Your task to perform on an android device: turn on location history Image 0: 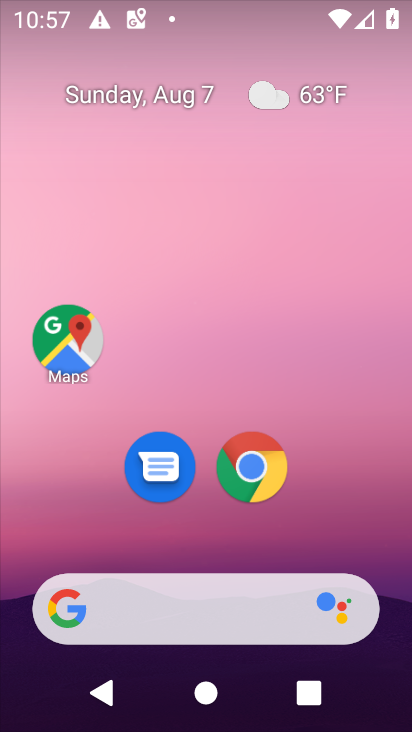
Step 0: press back button
Your task to perform on an android device: turn on location history Image 1: 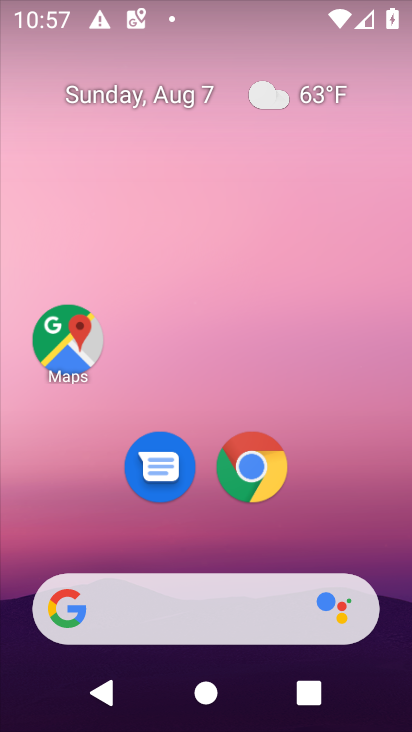
Step 1: drag from (226, 650) to (219, 271)
Your task to perform on an android device: turn on location history Image 2: 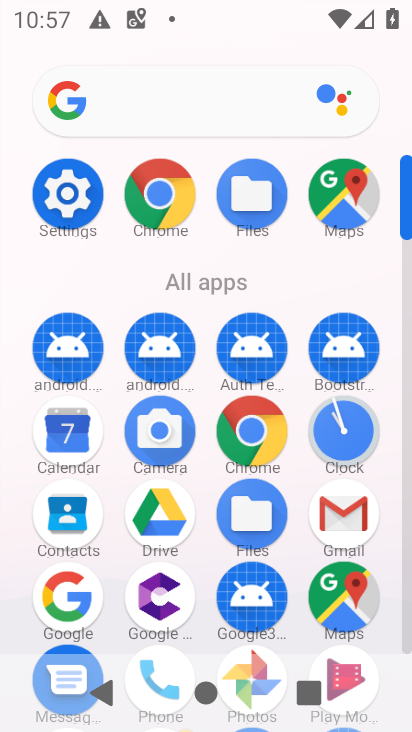
Step 2: click (157, 185)
Your task to perform on an android device: turn on location history Image 3: 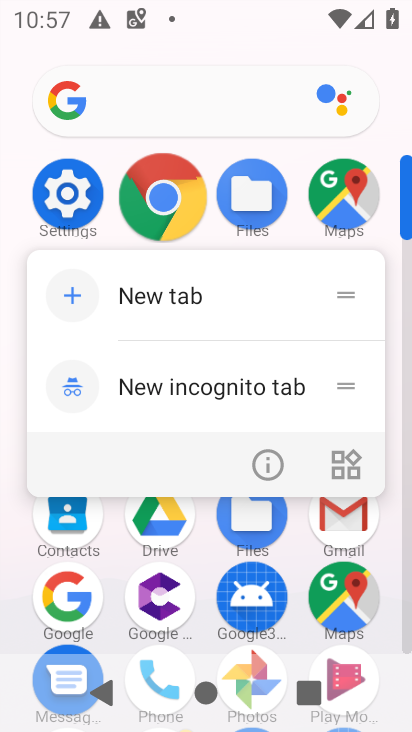
Step 3: click (159, 190)
Your task to perform on an android device: turn on location history Image 4: 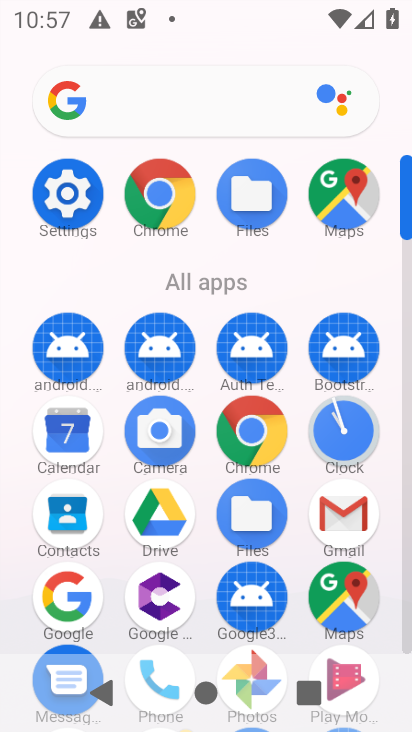
Step 4: click (196, 161)
Your task to perform on an android device: turn on location history Image 5: 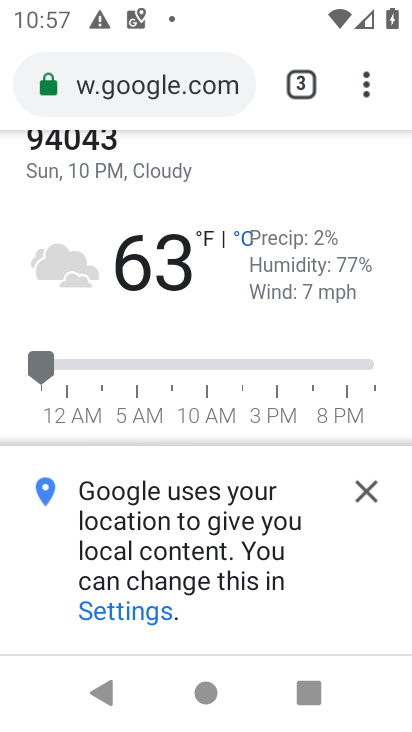
Step 5: drag from (219, 206) to (231, 419)
Your task to perform on an android device: turn on location history Image 6: 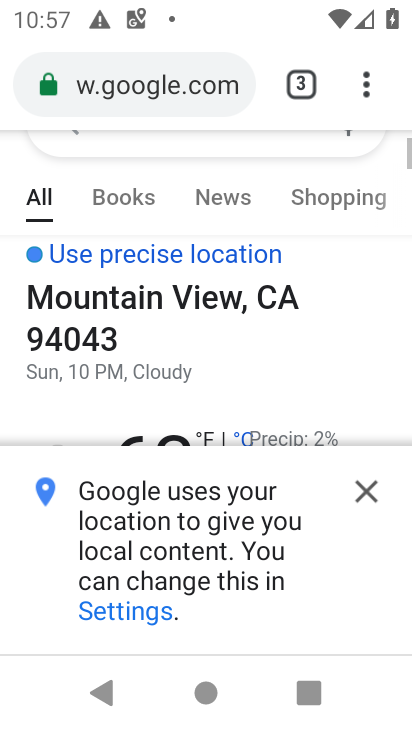
Step 6: drag from (250, 244) to (249, 529)
Your task to perform on an android device: turn on location history Image 7: 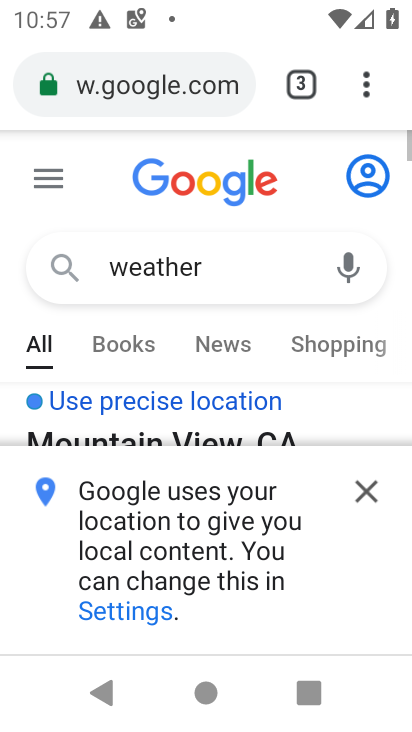
Step 7: drag from (243, 309) to (239, 469)
Your task to perform on an android device: turn on location history Image 8: 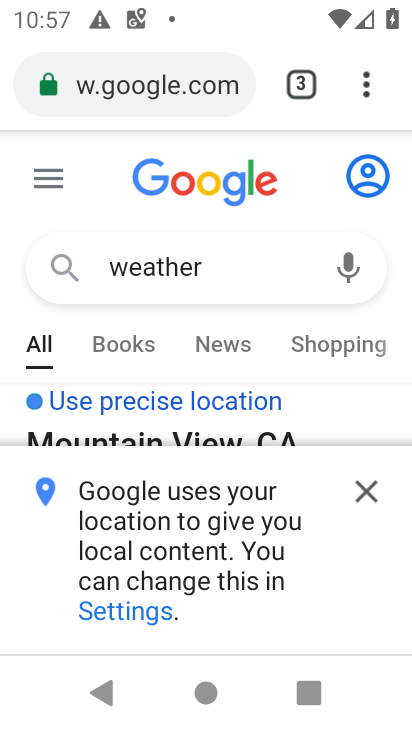
Step 8: press back button
Your task to perform on an android device: turn on location history Image 9: 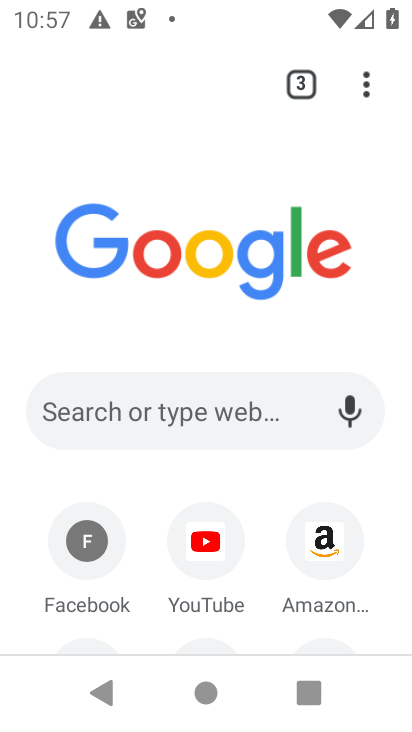
Step 9: press back button
Your task to perform on an android device: turn on location history Image 10: 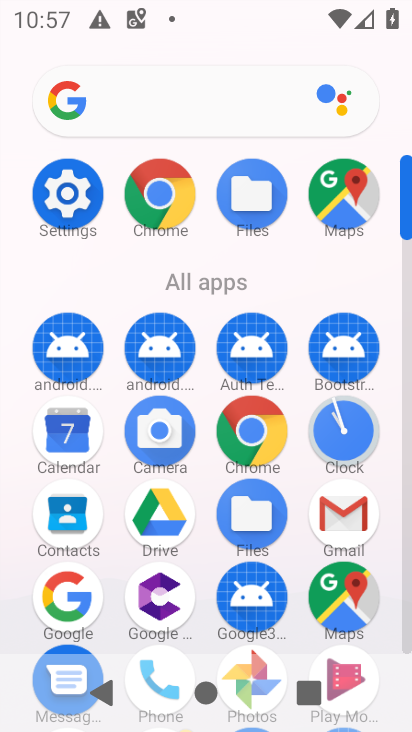
Step 10: drag from (64, 192) to (83, 220)
Your task to perform on an android device: turn on location history Image 11: 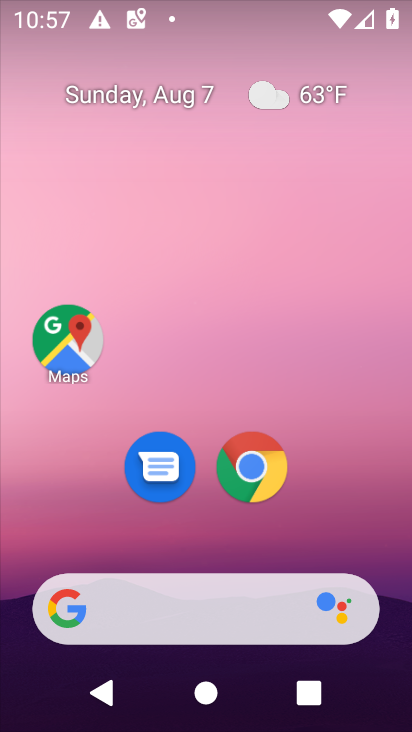
Step 11: drag from (188, 374) to (188, 192)
Your task to perform on an android device: turn on location history Image 12: 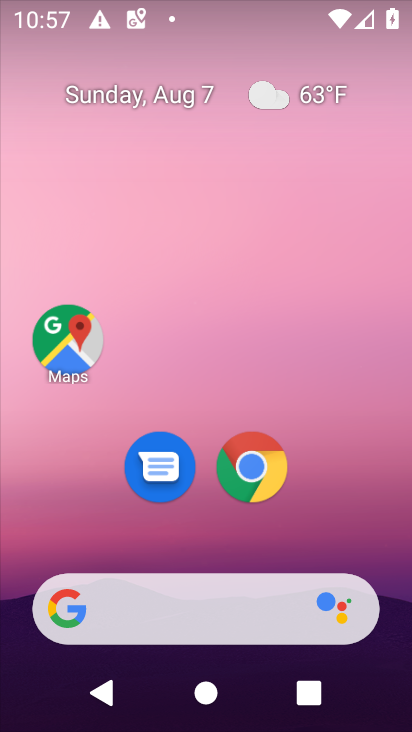
Step 12: drag from (149, 479) to (184, 151)
Your task to perform on an android device: turn on location history Image 13: 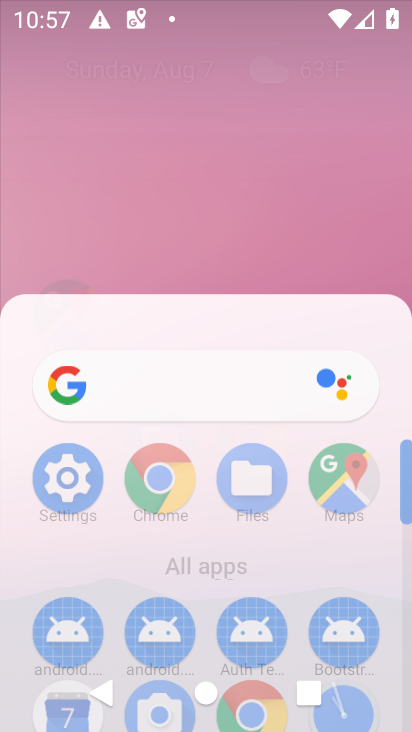
Step 13: drag from (231, 471) to (202, 138)
Your task to perform on an android device: turn on location history Image 14: 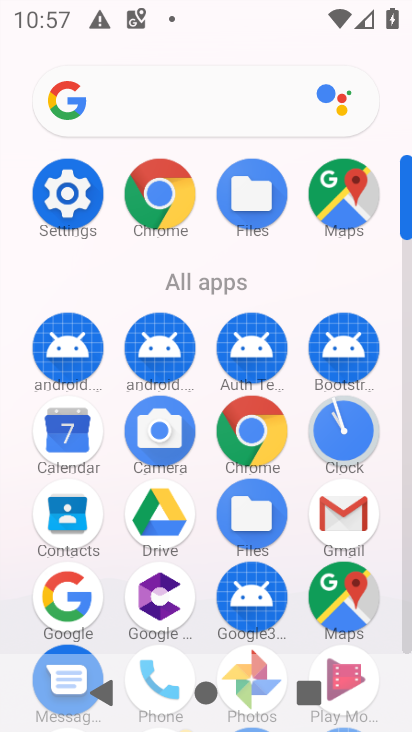
Step 14: drag from (281, 467) to (258, 143)
Your task to perform on an android device: turn on location history Image 15: 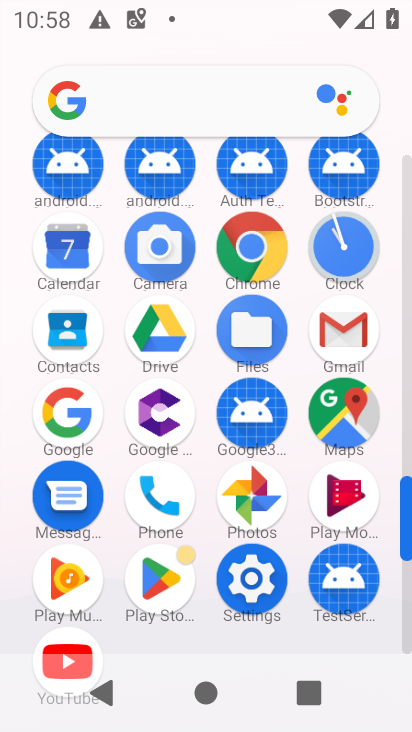
Step 15: drag from (268, 567) to (256, 609)
Your task to perform on an android device: turn on location history Image 16: 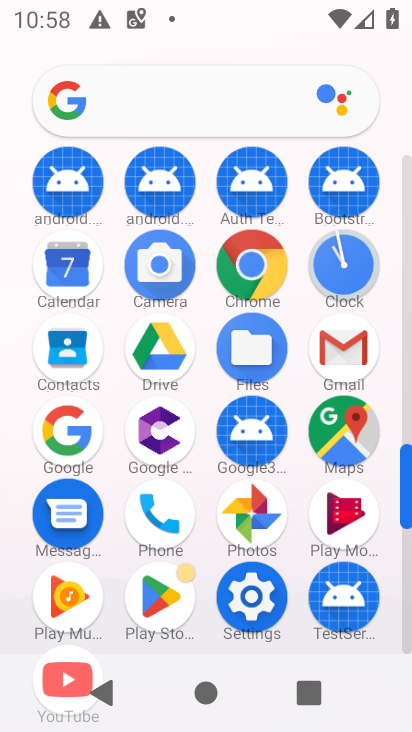
Step 16: click (234, 614)
Your task to perform on an android device: turn on location history Image 17: 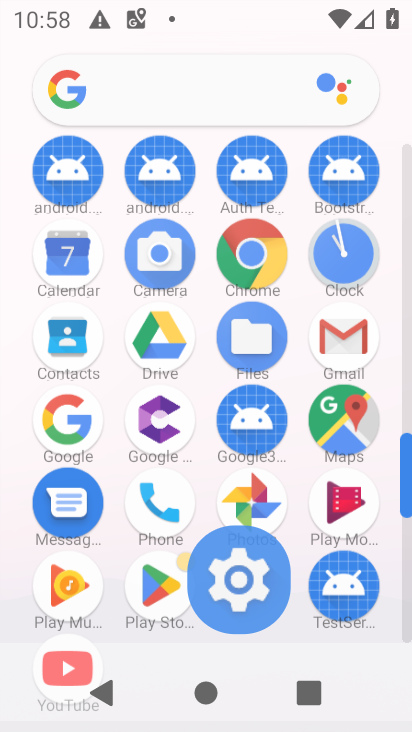
Step 17: click (234, 614)
Your task to perform on an android device: turn on location history Image 18: 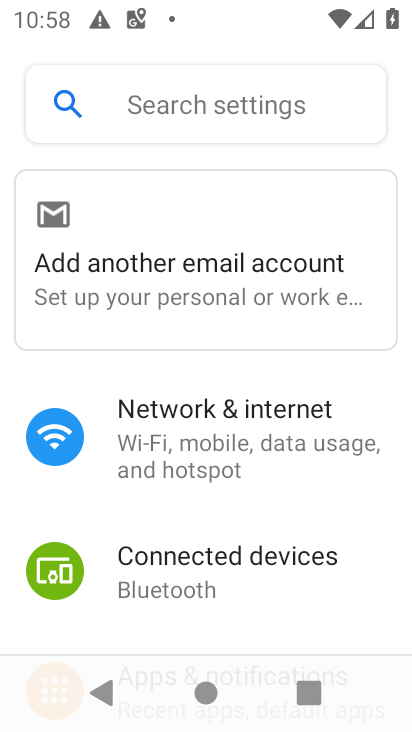
Step 18: drag from (187, 484) to (172, 321)
Your task to perform on an android device: turn on location history Image 19: 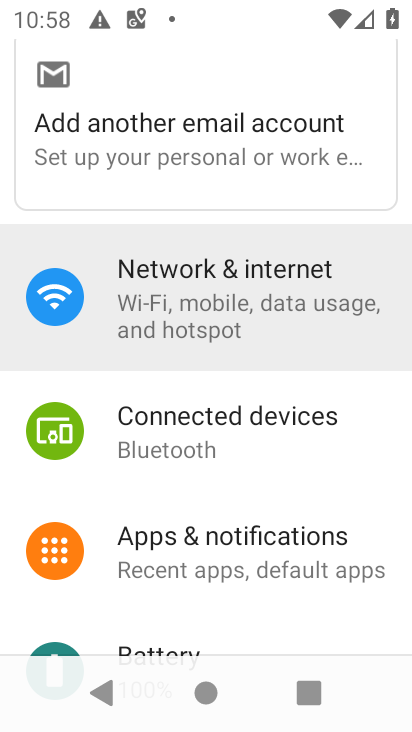
Step 19: drag from (238, 508) to (238, 204)
Your task to perform on an android device: turn on location history Image 20: 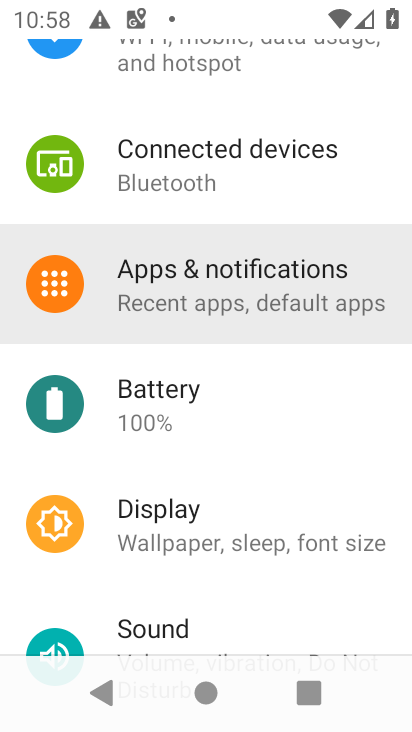
Step 20: click (289, 356)
Your task to perform on an android device: turn on location history Image 21: 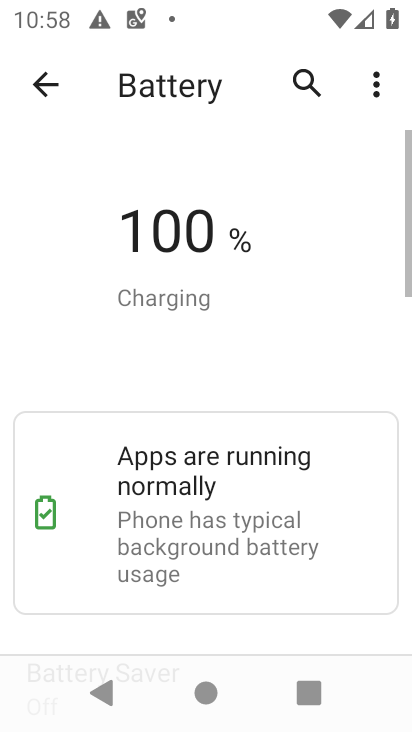
Step 21: drag from (213, 558) to (149, 220)
Your task to perform on an android device: turn on location history Image 22: 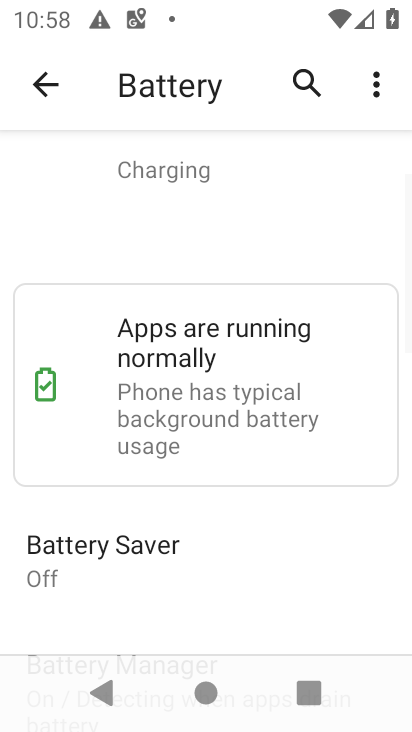
Step 22: click (37, 93)
Your task to perform on an android device: turn on location history Image 23: 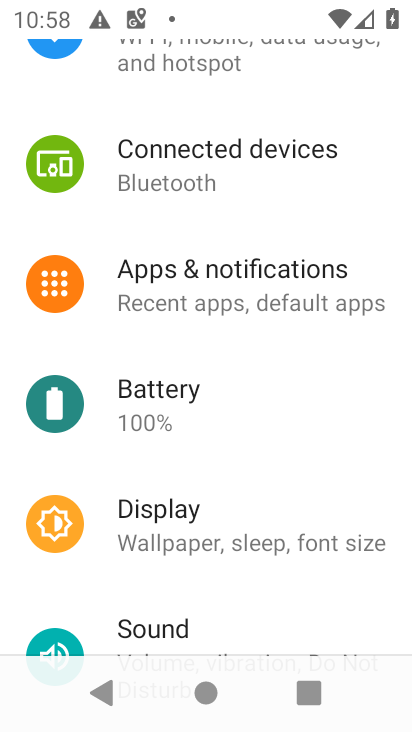
Step 23: drag from (254, 577) to (234, 200)
Your task to perform on an android device: turn on location history Image 24: 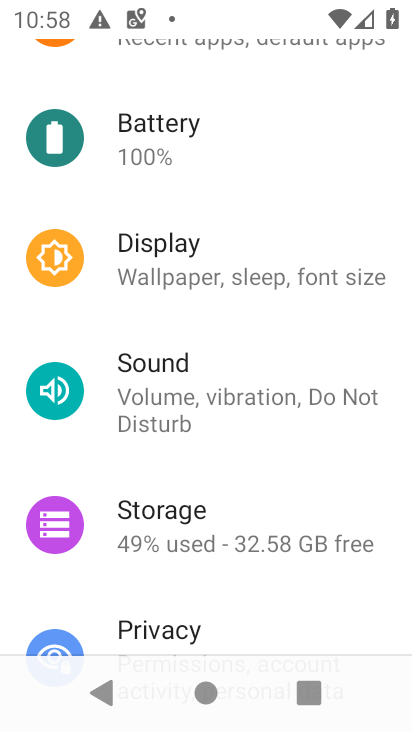
Step 24: click (301, 306)
Your task to perform on an android device: turn on location history Image 25: 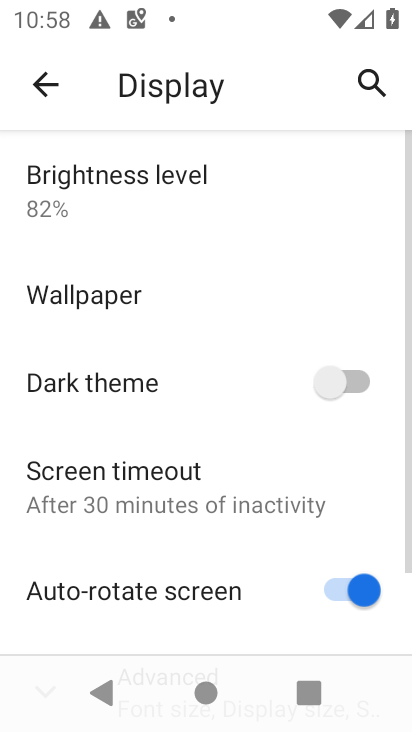
Step 25: click (39, 87)
Your task to perform on an android device: turn on location history Image 26: 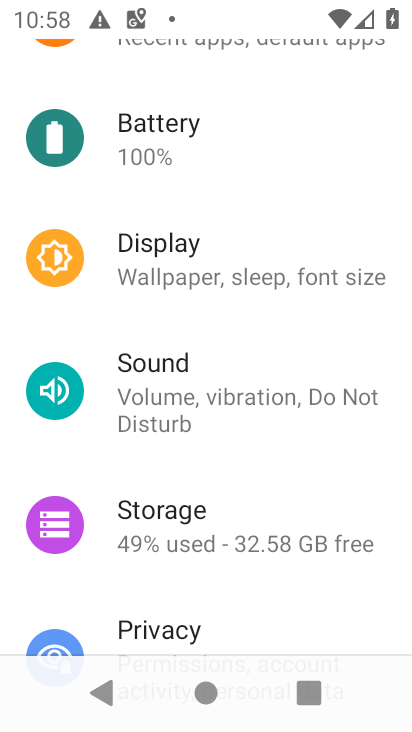
Step 26: drag from (216, 534) to (197, 251)
Your task to perform on an android device: turn on location history Image 27: 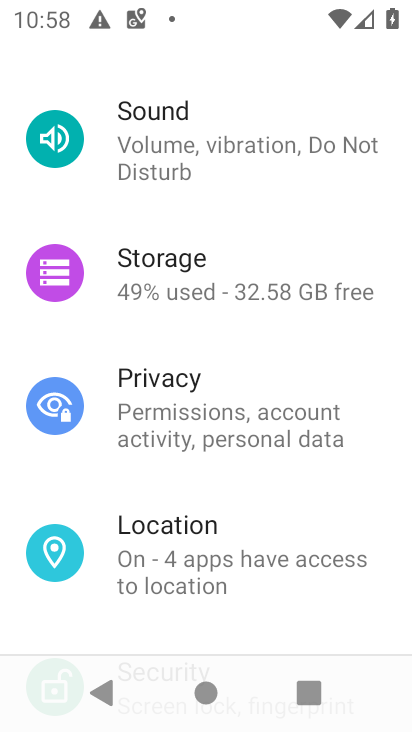
Step 27: drag from (227, 422) to (229, 279)
Your task to perform on an android device: turn on location history Image 28: 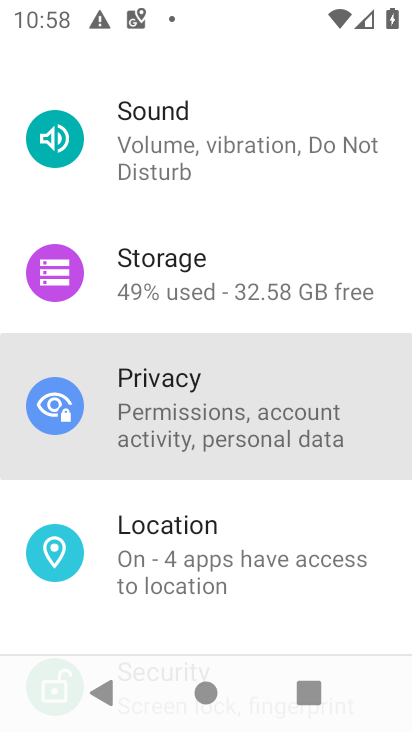
Step 28: drag from (250, 435) to (184, 322)
Your task to perform on an android device: turn on location history Image 29: 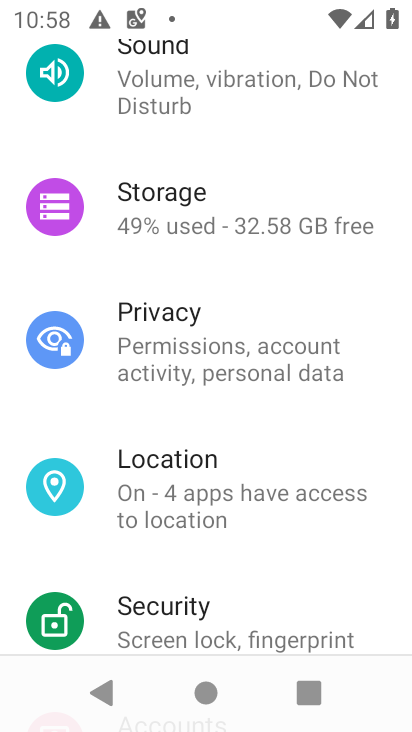
Step 29: click (183, 486)
Your task to perform on an android device: turn on location history Image 30: 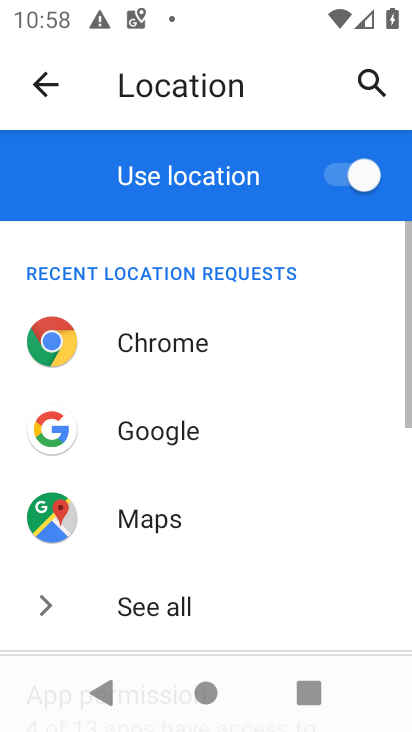
Step 30: click (41, 87)
Your task to perform on an android device: turn on location history Image 31: 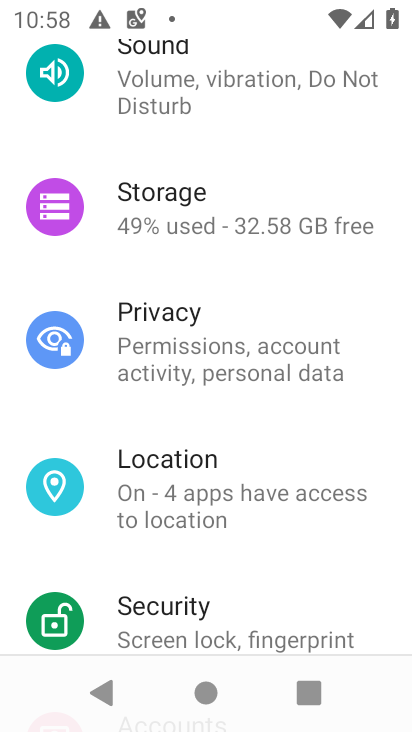
Step 31: click (181, 485)
Your task to perform on an android device: turn on location history Image 32: 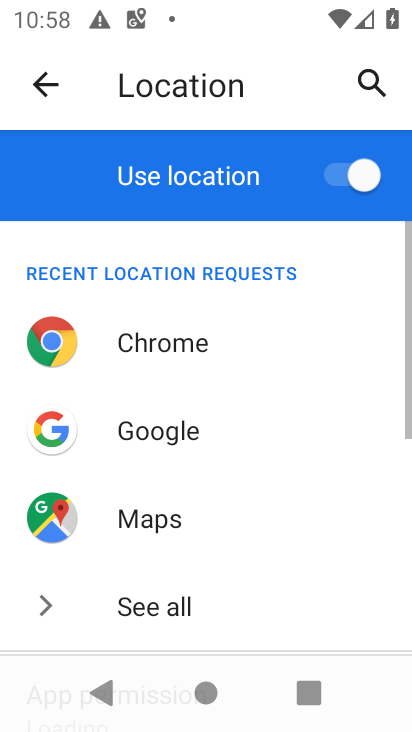
Step 32: drag from (200, 542) to (181, 253)
Your task to perform on an android device: turn on location history Image 33: 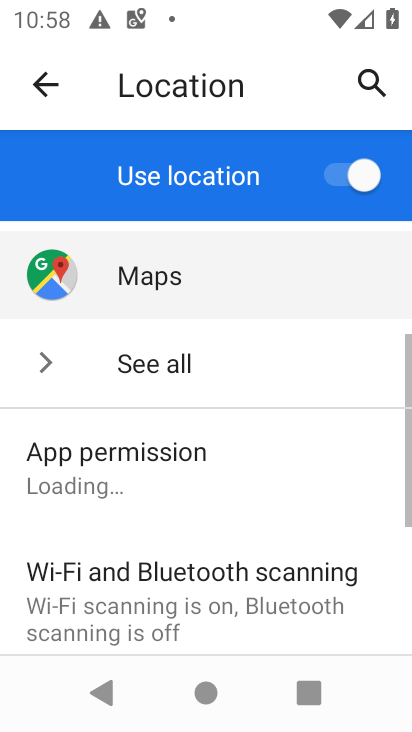
Step 33: drag from (243, 468) to (245, 208)
Your task to perform on an android device: turn on location history Image 34: 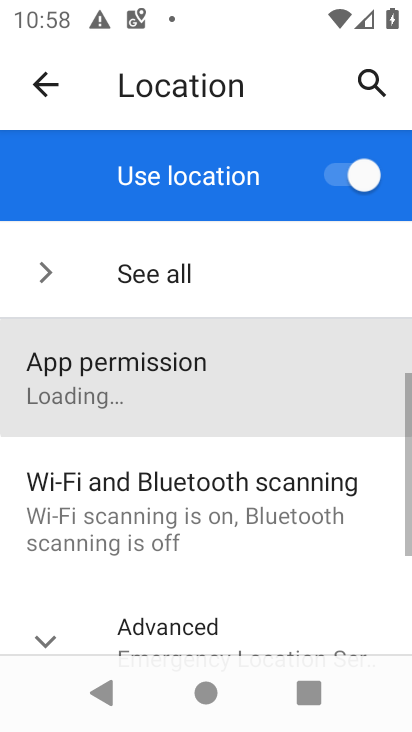
Step 34: drag from (239, 431) to (278, 194)
Your task to perform on an android device: turn on location history Image 35: 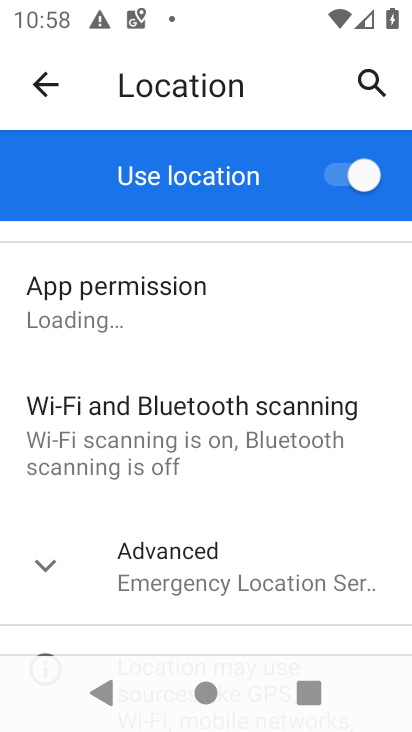
Step 35: click (182, 549)
Your task to perform on an android device: turn on location history Image 36: 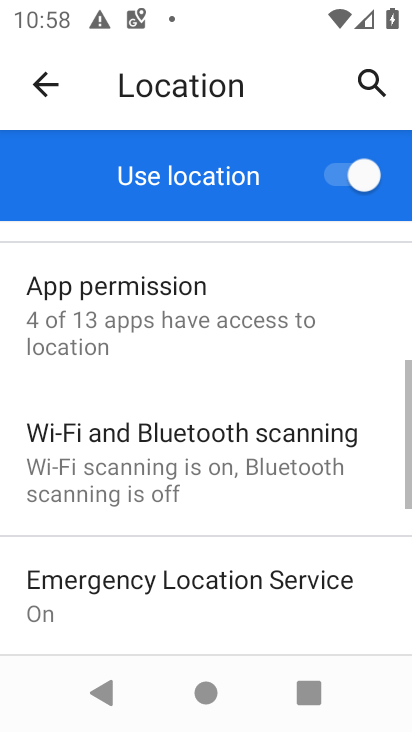
Step 36: drag from (199, 531) to (199, 241)
Your task to perform on an android device: turn on location history Image 37: 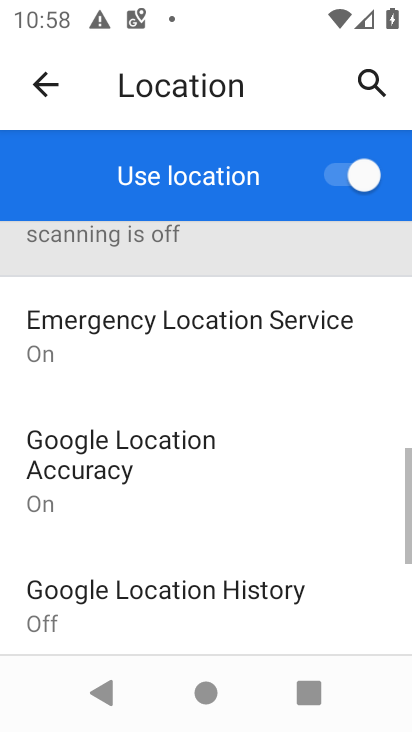
Step 37: drag from (289, 450) to (334, 126)
Your task to perform on an android device: turn on location history Image 38: 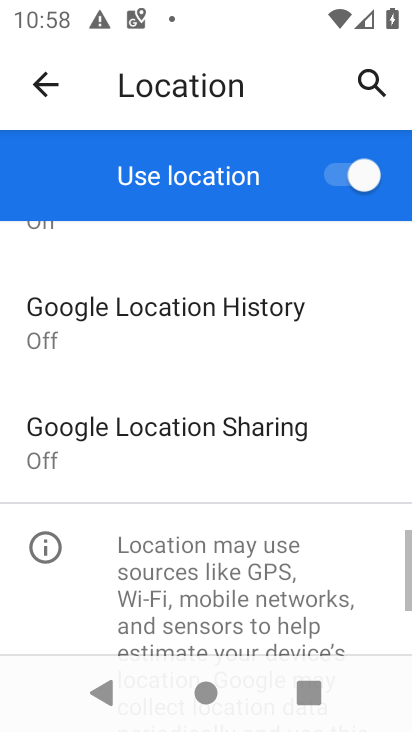
Step 38: drag from (313, 414) to (294, 230)
Your task to perform on an android device: turn on location history Image 39: 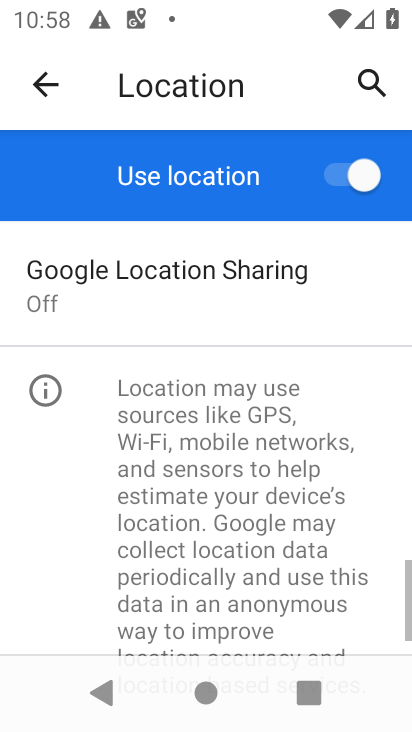
Step 39: drag from (268, 473) to (237, 242)
Your task to perform on an android device: turn on location history Image 40: 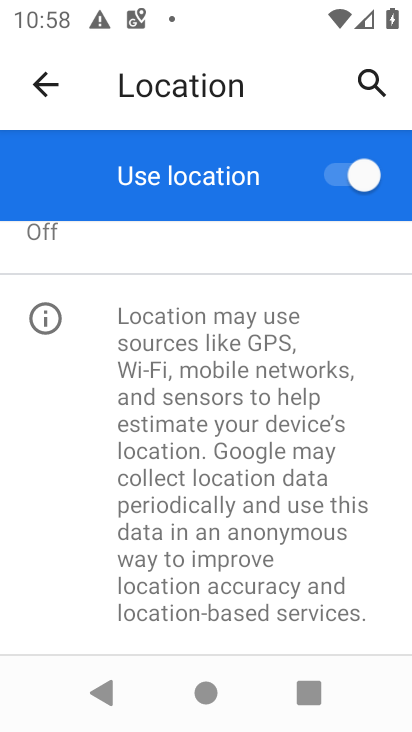
Step 40: drag from (143, 326) to (180, 480)
Your task to perform on an android device: turn on location history Image 41: 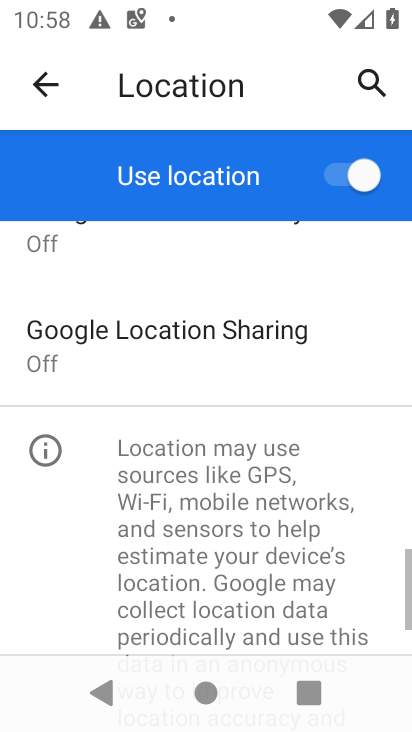
Step 41: drag from (234, 283) to (230, 484)
Your task to perform on an android device: turn on location history Image 42: 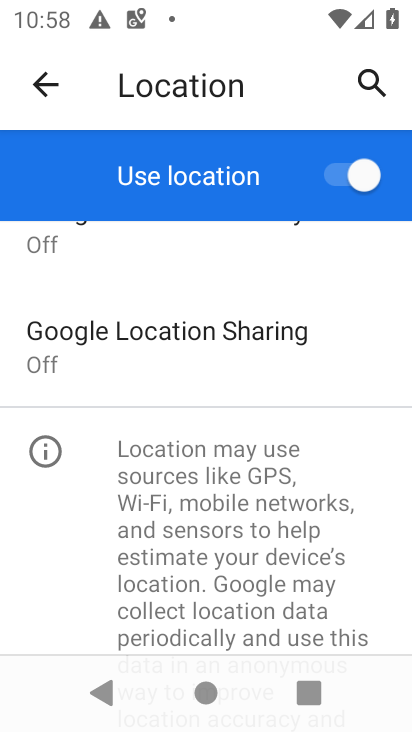
Step 42: drag from (217, 373) to (225, 551)
Your task to perform on an android device: turn on location history Image 43: 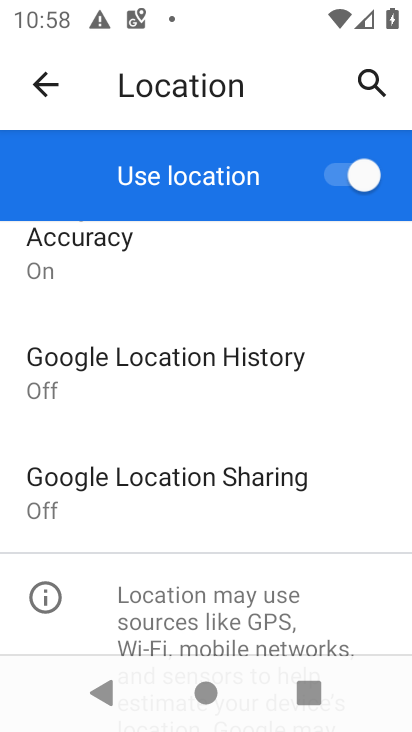
Step 43: click (146, 354)
Your task to perform on an android device: turn on location history Image 44: 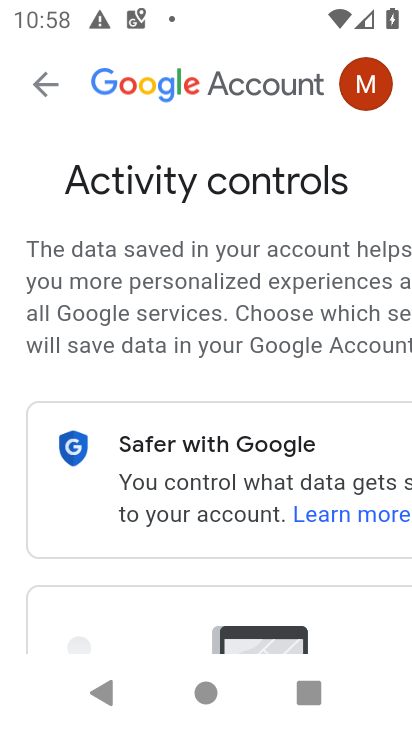
Step 44: task complete